Your task to perform on an android device: empty trash in the gmail app Image 0: 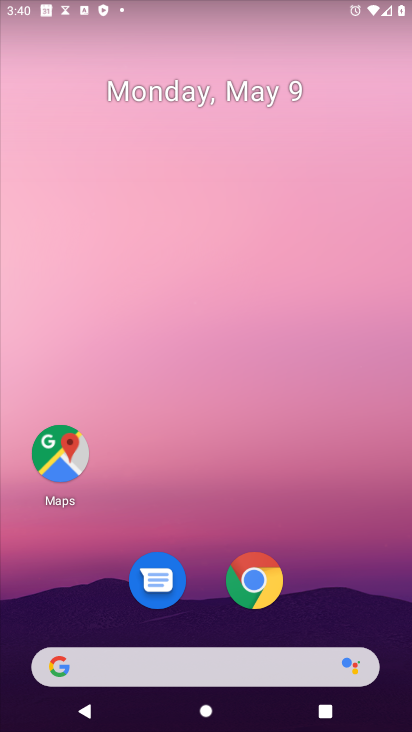
Step 0: drag from (335, 388) to (266, 76)
Your task to perform on an android device: empty trash in the gmail app Image 1: 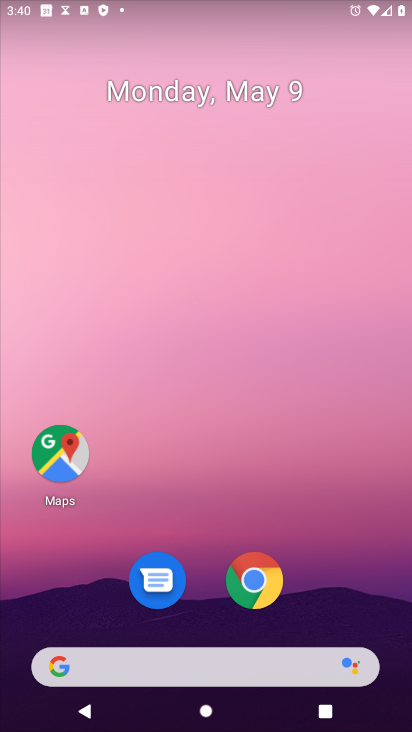
Step 1: drag from (334, 590) to (292, 106)
Your task to perform on an android device: empty trash in the gmail app Image 2: 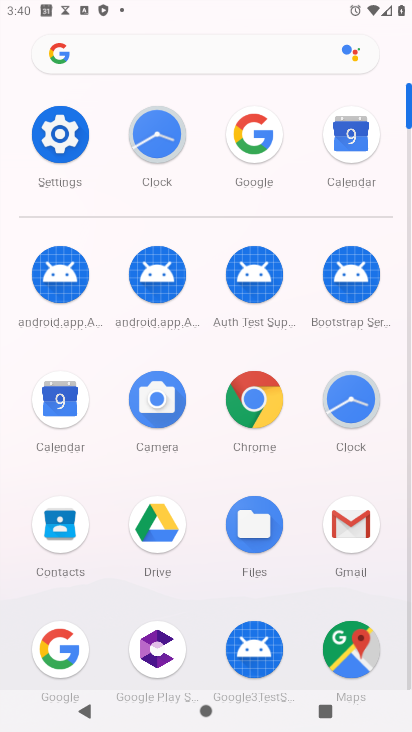
Step 2: click (356, 522)
Your task to perform on an android device: empty trash in the gmail app Image 3: 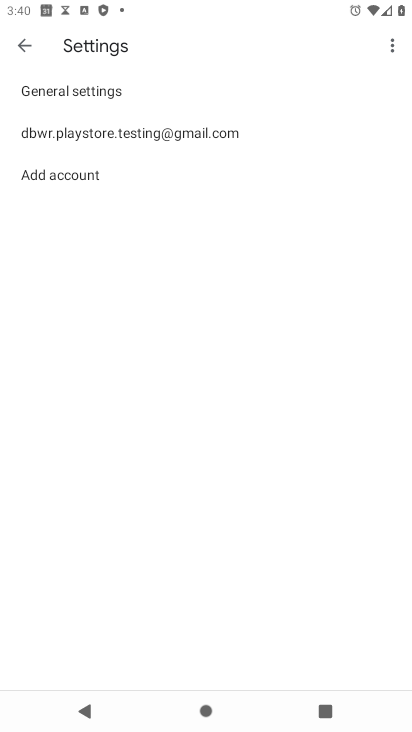
Step 3: click (25, 61)
Your task to perform on an android device: empty trash in the gmail app Image 4: 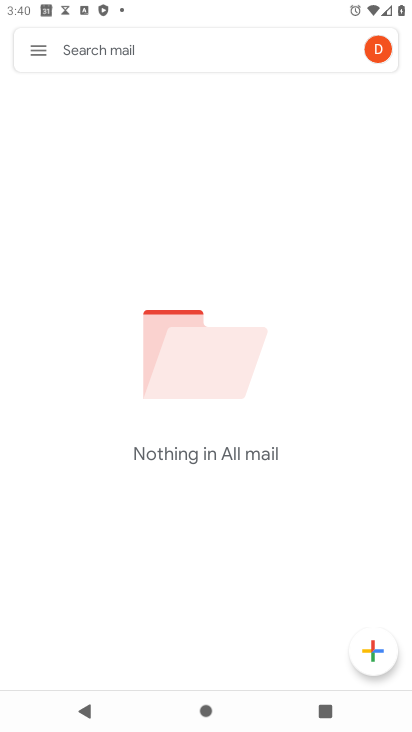
Step 4: click (43, 52)
Your task to perform on an android device: empty trash in the gmail app Image 5: 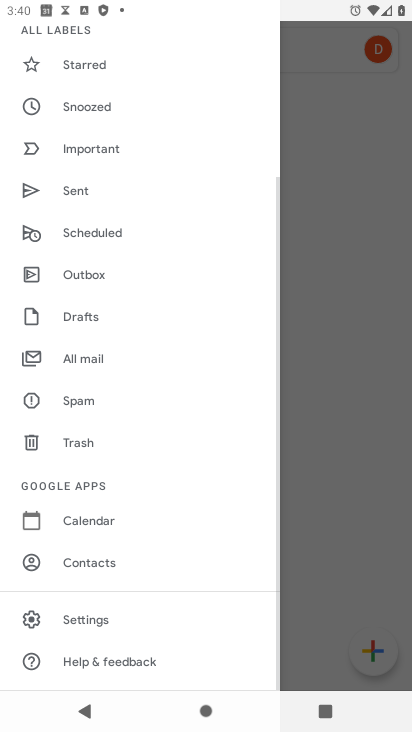
Step 5: click (100, 434)
Your task to perform on an android device: empty trash in the gmail app Image 6: 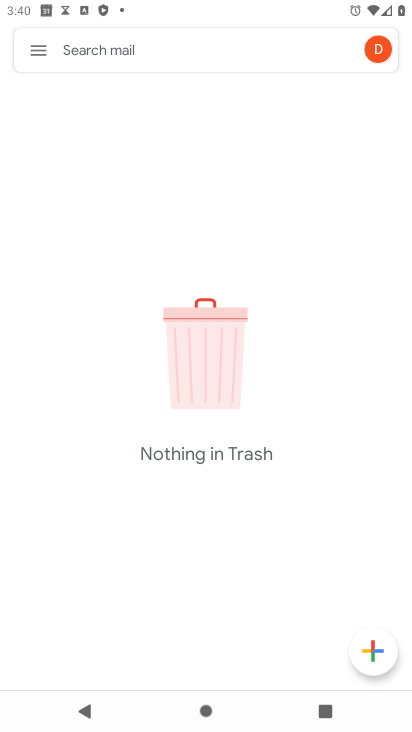
Step 6: task complete